Your task to perform on an android device: Open Google Chrome and click the shortcut for Amazon.com Image 0: 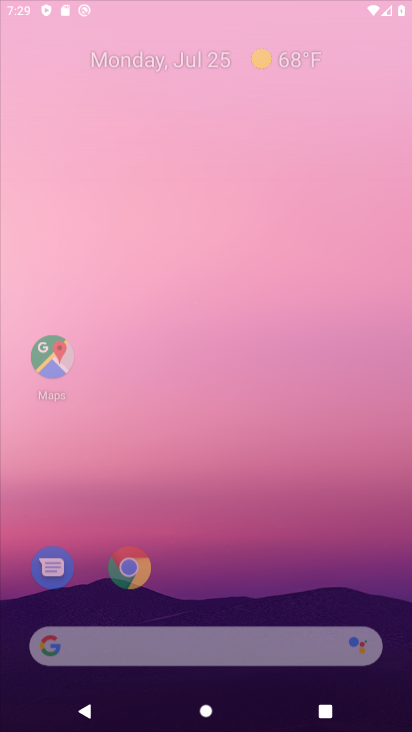
Step 0: press home button
Your task to perform on an android device: Open Google Chrome and click the shortcut for Amazon.com Image 1: 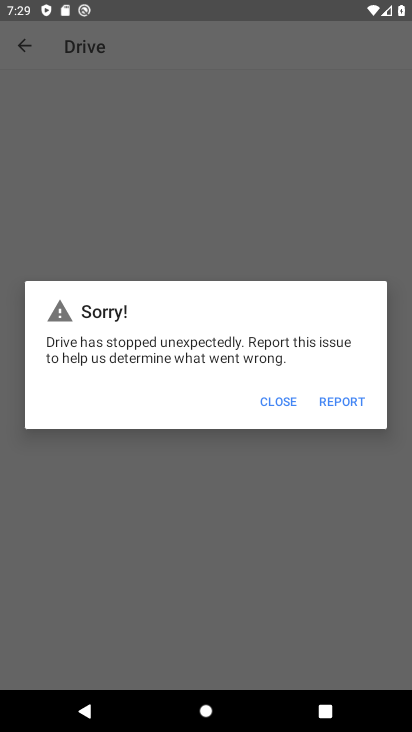
Step 1: click (335, 48)
Your task to perform on an android device: Open Google Chrome and click the shortcut for Amazon.com Image 2: 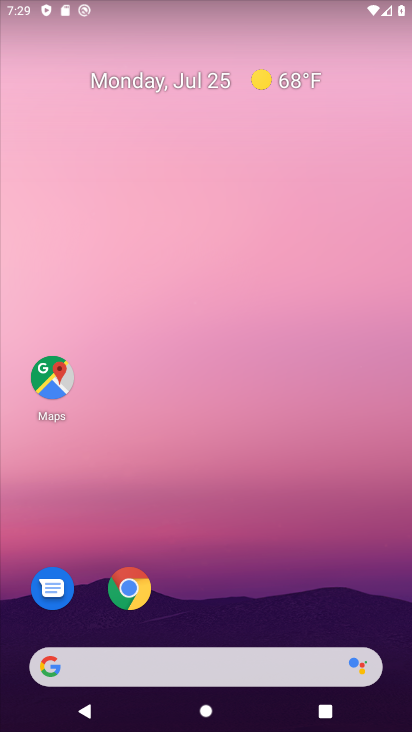
Step 2: drag from (344, 604) to (358, 55)
Your task to perform on an android device: Open Google Chrome and click the shortcut for Amazon.com Image 3: 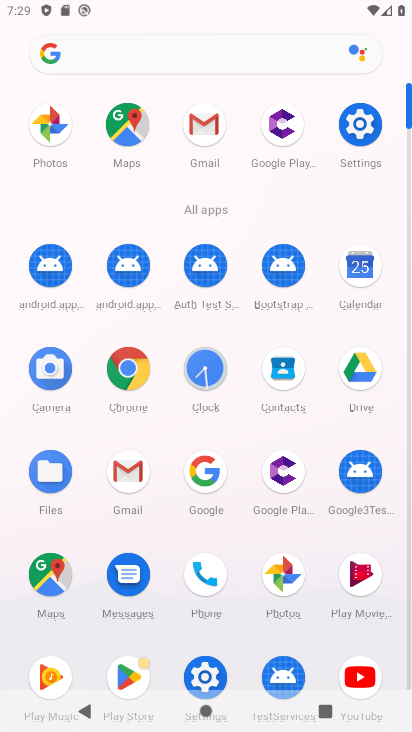
Step 3: click (131, 380)
Your task to perform on an android device: Open Google Chrome and click the shortcut for Amazon.com Image 4: 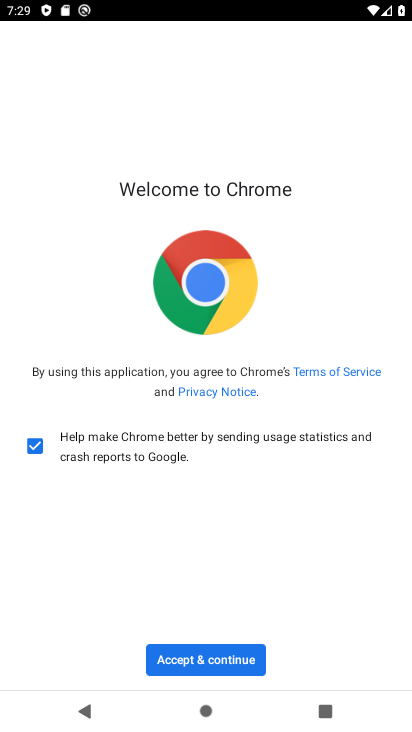
Step 4: click (209, 653)
Your task to perform on an android device: Open Google Chrome and click the shortcut for Amazon.com Image 5: 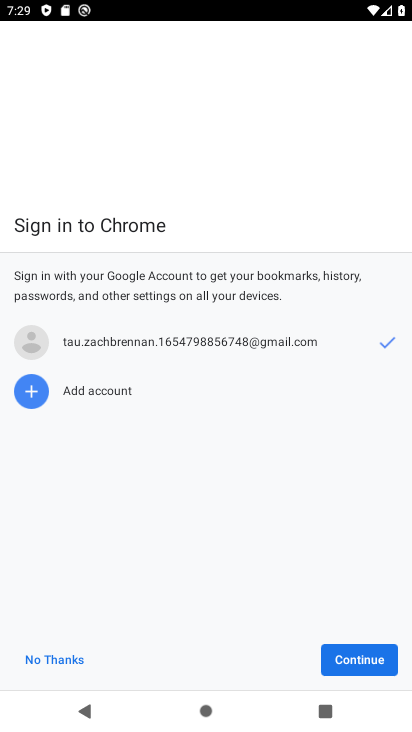
Step 5: click (356, 655)
Your task to perform on an android device: Open Google Chrome and click the shortcut for Amazon.com Image 6: 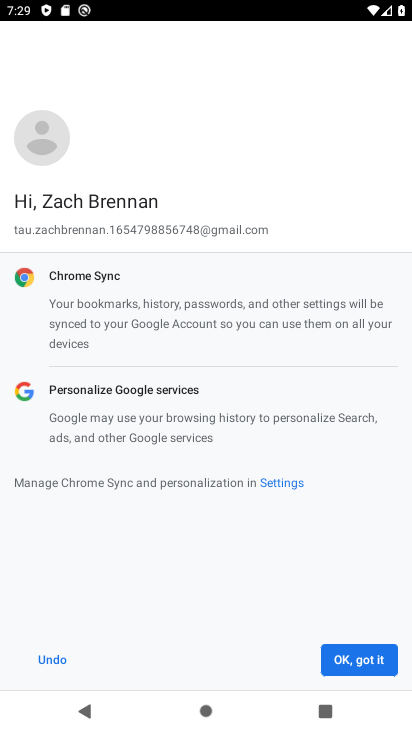
Step 6: click (356, 655)
Your task to perform on an android device: Open Google Chrome and click the shortcut for Amazon.com Image 7: 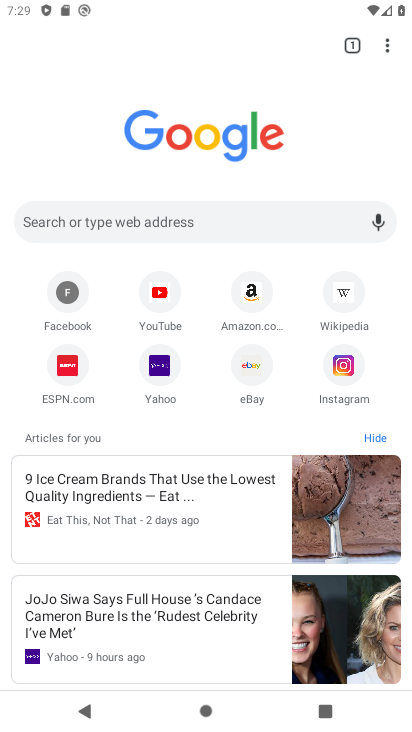
Step 7: click (254, 294)
Your task to perform on an android device: Open Google Chrome and click the shortcut for Amazon.com Image 8: 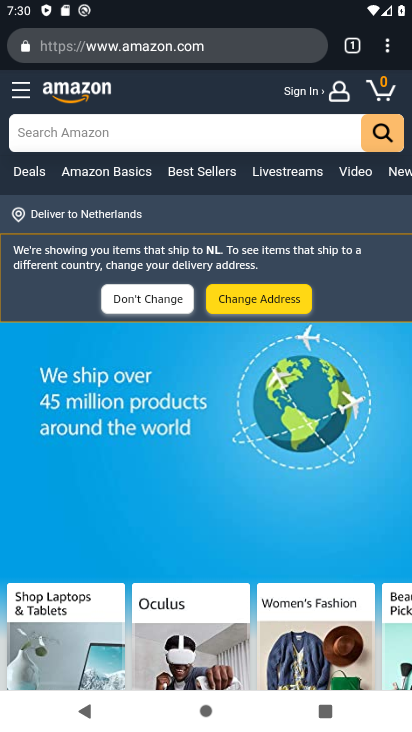
Step 8: task complete